Your task to perform on an android device: see creations saved in the google photos Image 0: 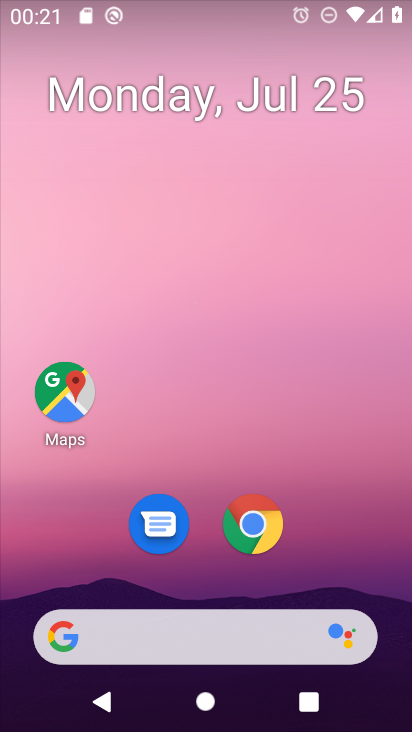
Step 0: drag from (170, 642) to (380, 11)
Your task to perform on an android device: see creations saved in the google photos Image 1: 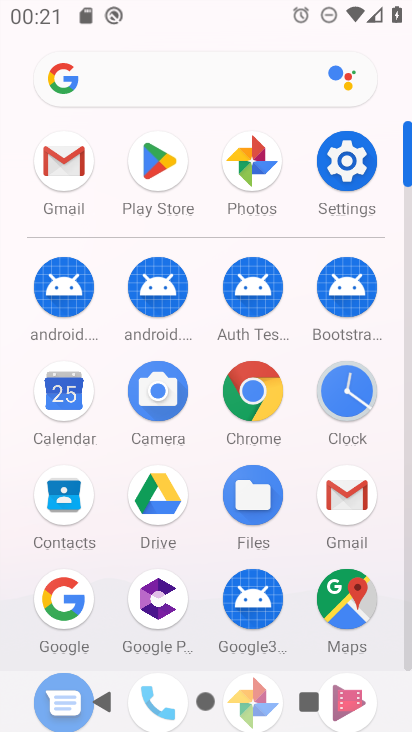
Step 1: drag from (191, 563) to (338, 288)
Your task to perform on an android device: see creations saved in the google photos Image 2: 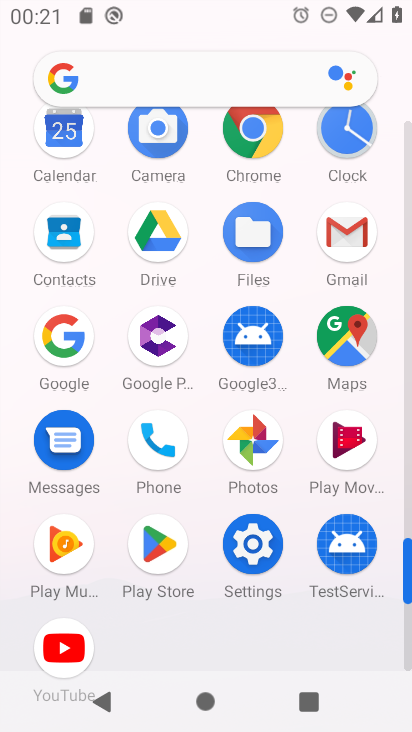
Step 2: click (160, 547)
Your task to perform on an android device: see creations saved in the google photos Image 3: 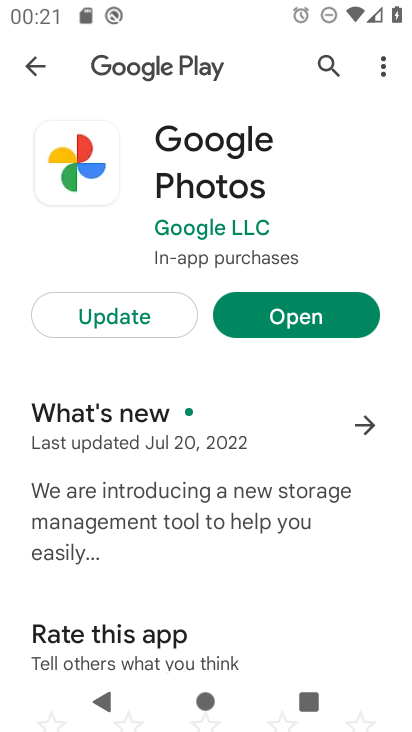
Step 3: click (295, 309)
Your task to perform on an android device: see creations saved in the google photos Image 4: 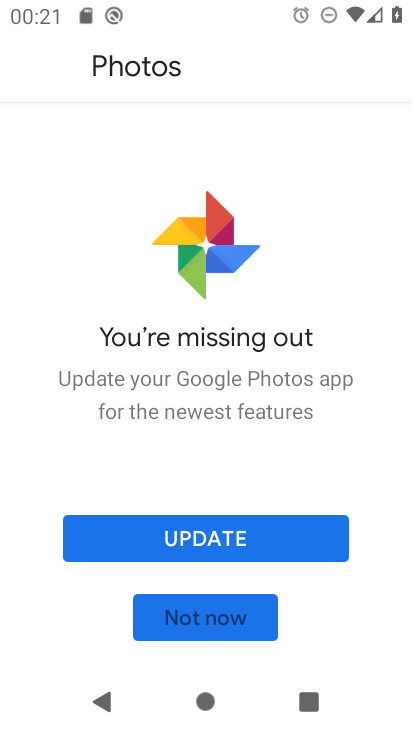
Step 4: click (227, 619)
Your task to perform on an android device: see creations saved in the google photos Image 5: 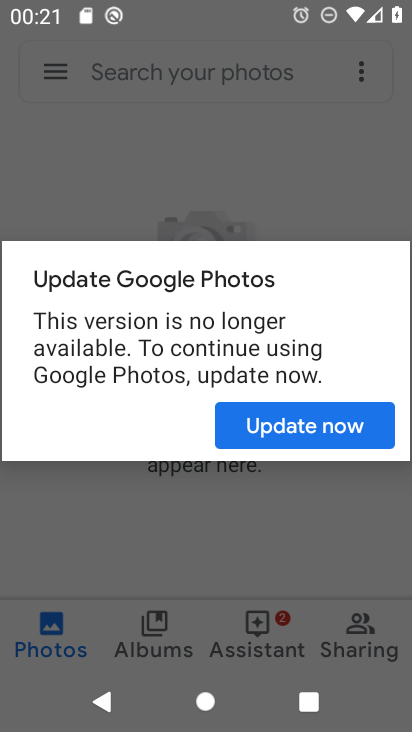
Step 5: click (329, 425)
Your task to perform on an android device: see creations saved in the google photos Image 6: 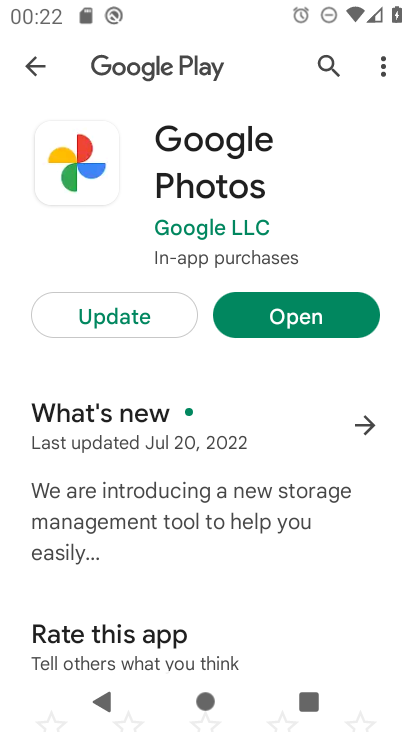
Step 6: click (306, 317)
Your task to perform on an android device: see creations saved in the google photos Image 7: 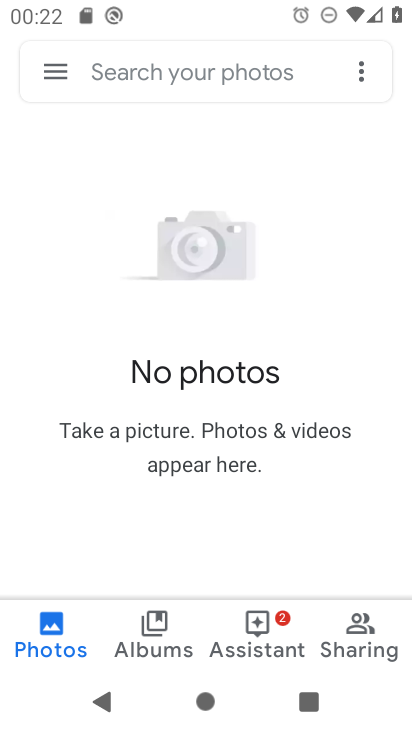
Step 7: click (154, 624)
Your task to perform on an android device: see creations saved in the google photos Image 8: 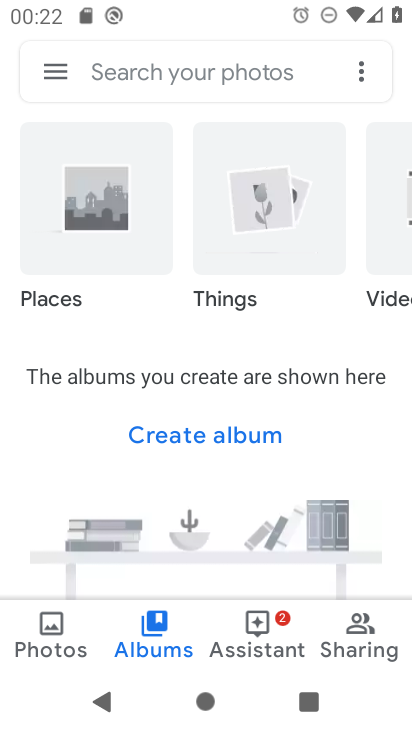
Step 8: click (174, 70)
Your task to perform on an android device: see creations saved in the google photos Image 9: 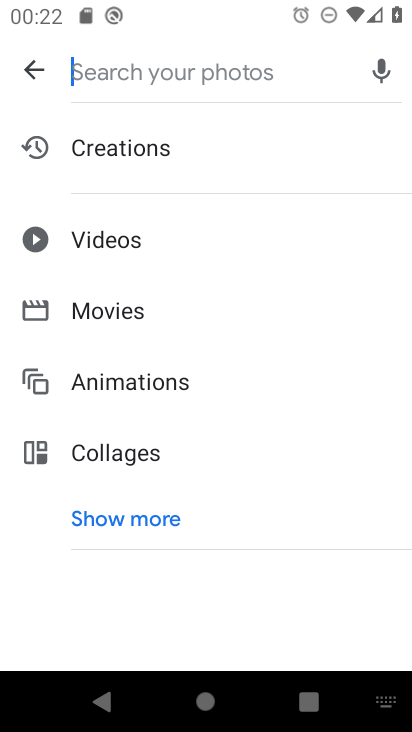
Step 9: click (107, 526)
Your task to perform on an android device: see creations saved in the google photos Image 10: 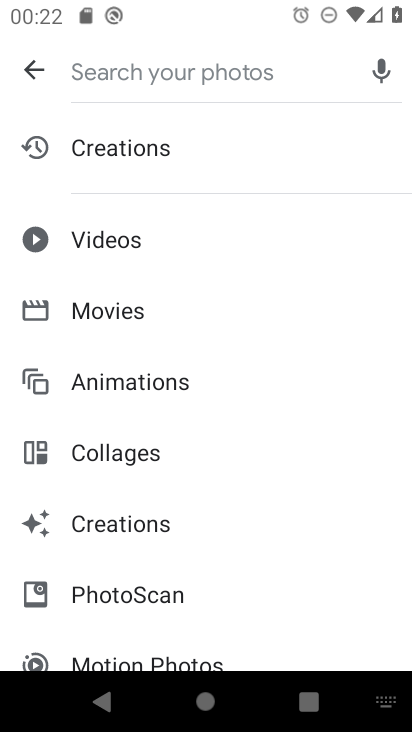
Step 10: click (136, 521)
Your task to perform on an android device: see creations saved in the google photos Image 11: 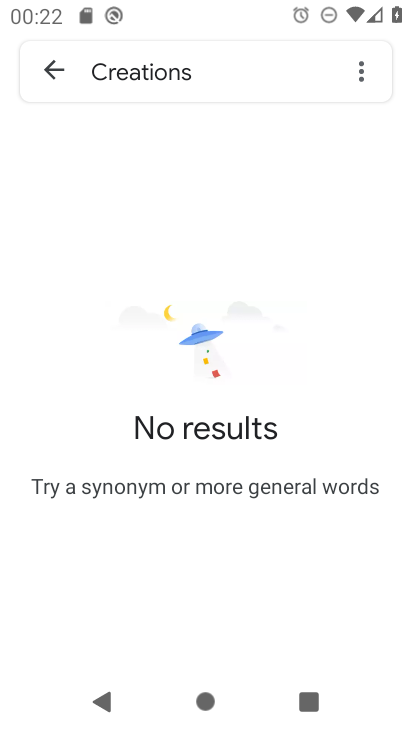
Step 11: task complete